Your task to perform on an android device: Show me recent news Image 0: 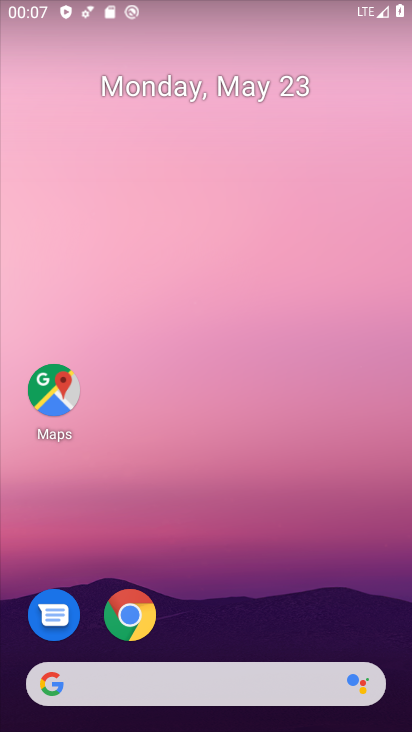
Step 0: click (173, 693)
Your task to perform on an android device: Show me recent news Image 1: 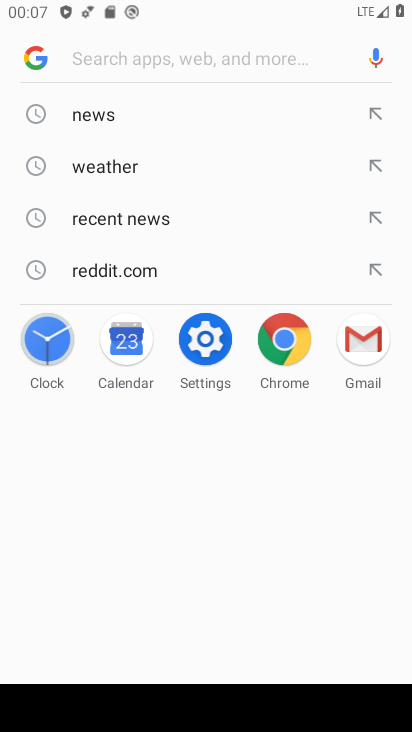
Step 1: click (92, 103)
Your task to perform on an android device: Show me recent news Image 2: 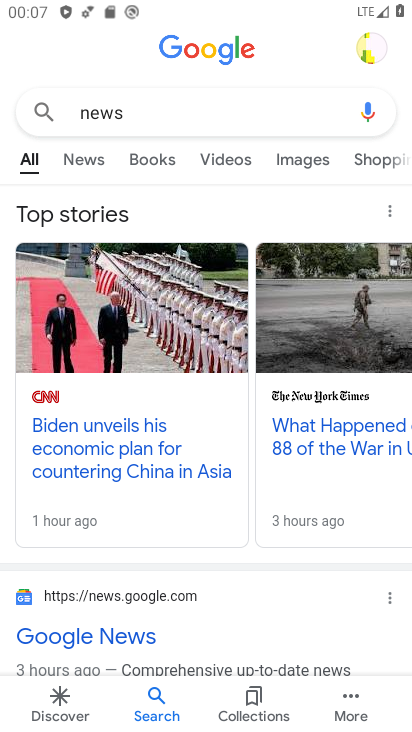
Step 2: task complete